Your task to perform on an android device: Open settings on Google Maps Image 0: 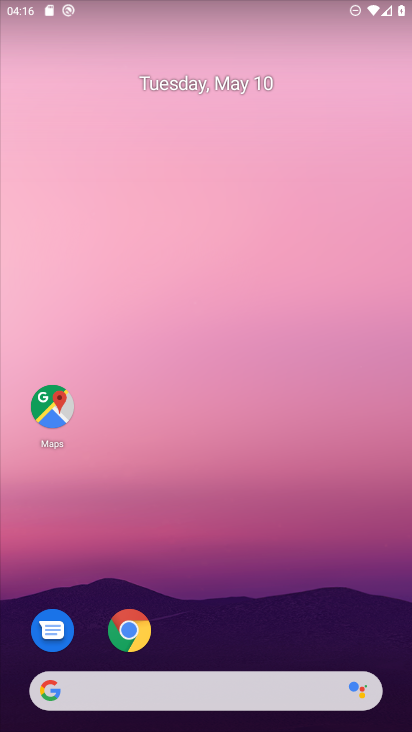
Step 0: click (41, 409)
Your task to perform on an android device: Open settings on Google Maps Image 1: 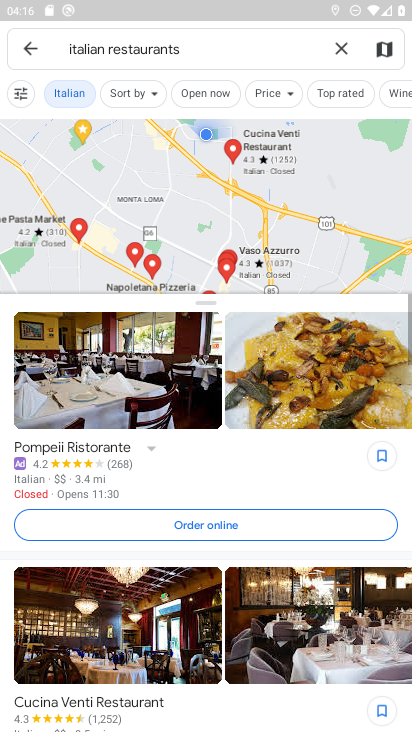
Step 1: click (45, 53)
Your task to perform on an android device: Open settings on Google Maps Image 2: 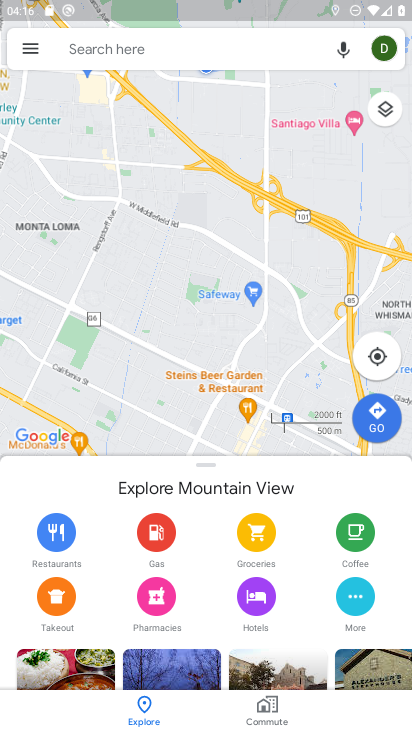
Step 2: click (45, 53)
Your task to perform on an android device: Open settings on Google Maps Image 3: 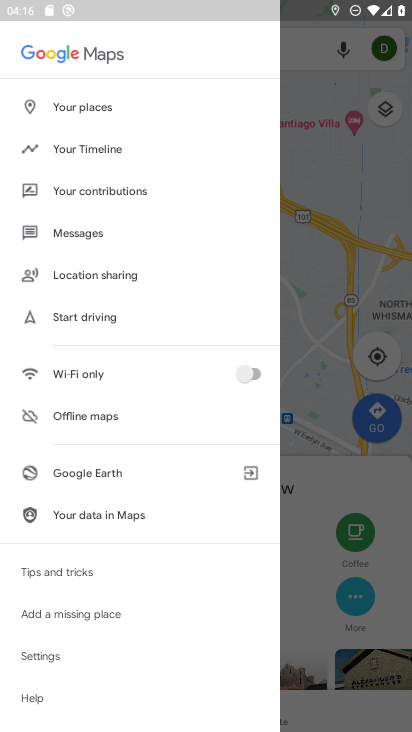
Step 3: click (62, 655)
Your task to perform on an android device: Open settings on Google Maps Image 4: 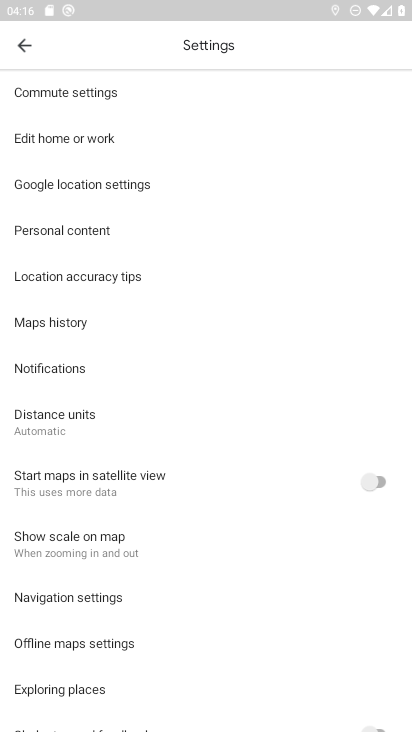
Step 4: task complete